Your task to perform on an android device: Open the stopwatch Image 0: 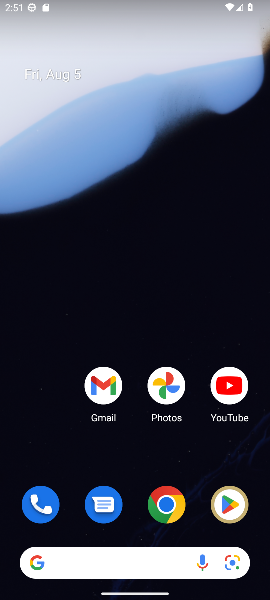
Step 0: drag from (72, 491) to (248, 90)
Your task to perform on an android device: Open the stopwatch Image 1: 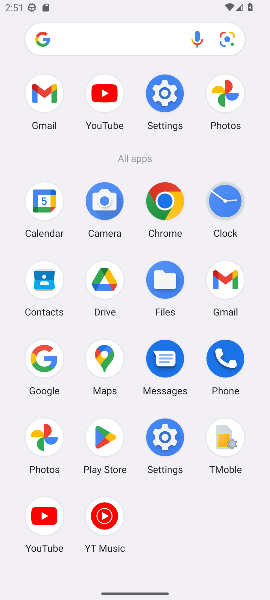
Step 1: click (231, 211)
Your task to perform on an android device: Open the stopwatch Image 2: 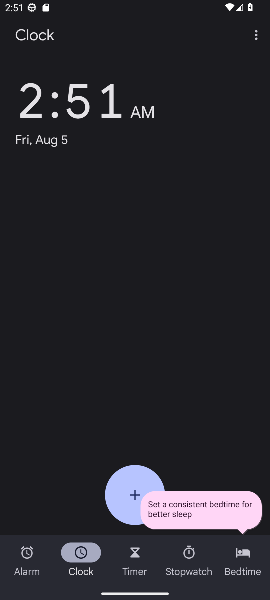
Step 2: click (168, 566)
Your task to perform on an android device: Open the stopwatch Image 3: 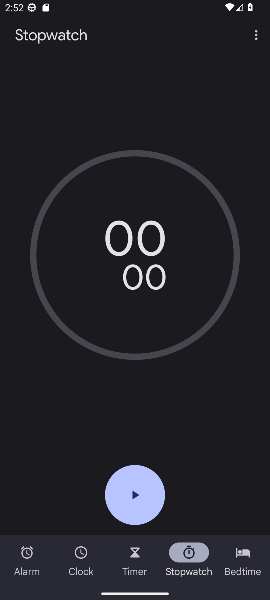
Step 3: task complete